Your task to perform on an android device: toggle javascript in the chrome app Image 0: 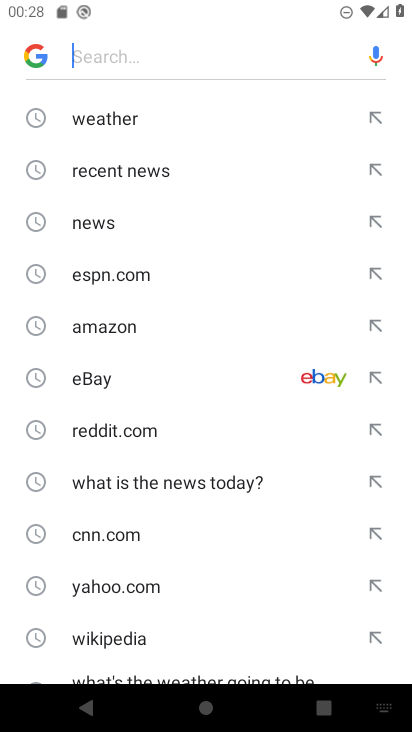
Step 0: press home button
Your task to perform on an android device: toggle javascript in the chrome app Image 1: 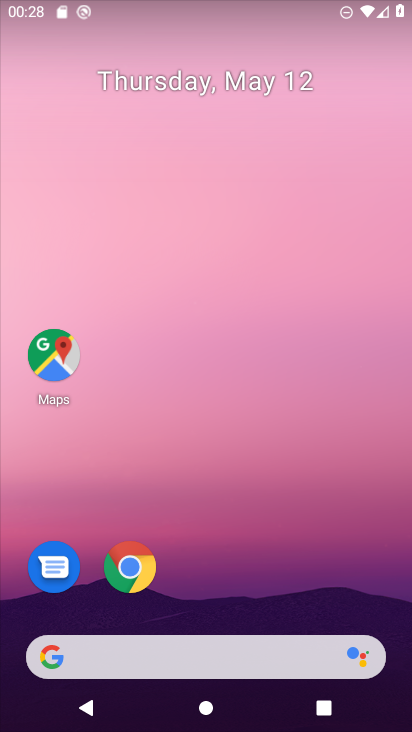
Step 1: click (143, 551)
Your task to perform on an android device: toggle javascript in the chrome app Image 2: 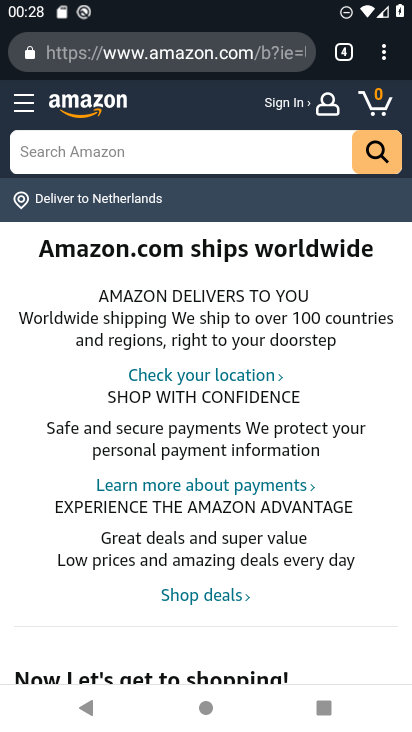
Step 2: click (387, 57)
Your task to perform on an android device: toggle javascript in the chrome app Image 3: 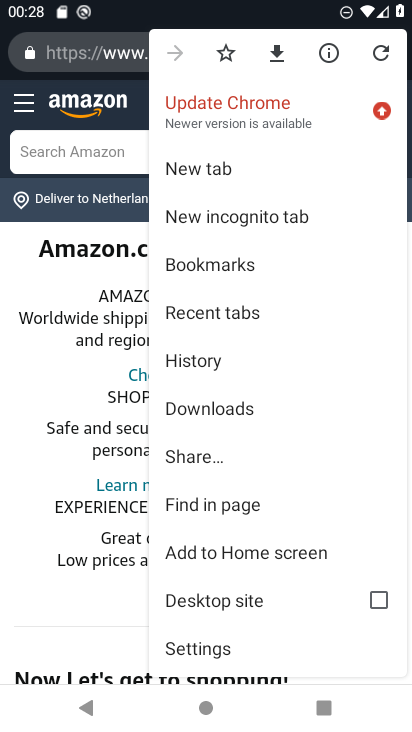
Step 3: click (247, 647)
Your task to perform on an android device: toggle javascript in the chrome app Image 4: 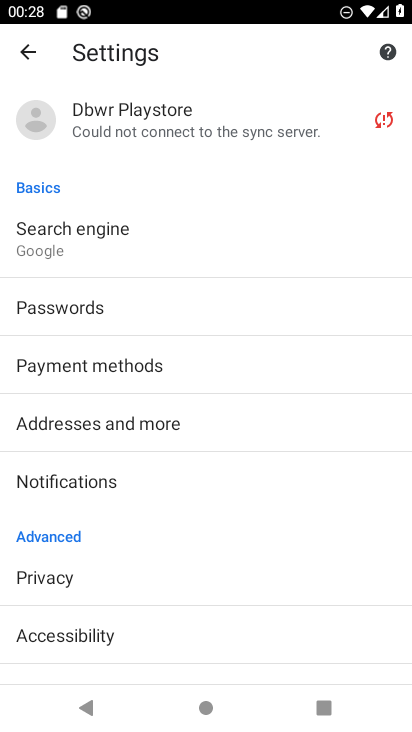
Step 4: drag from (333, 575) to (313, 74)
Your task to perform on an android device: toggle javascript in the chrome app Image 5: 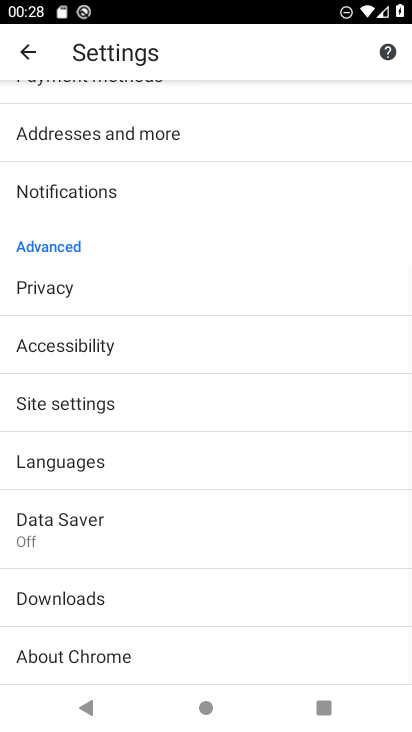
Step 5: click (82, 410)
Your task to perform on an android device: toggle javascript in the chrome app Image 6: 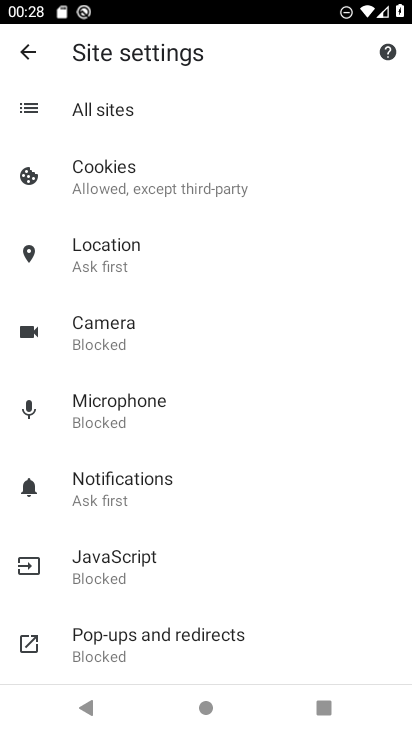
Step 6: click (111, 553)
Your task to perform on an android device: toggle javascript in the chrome app Image 7: 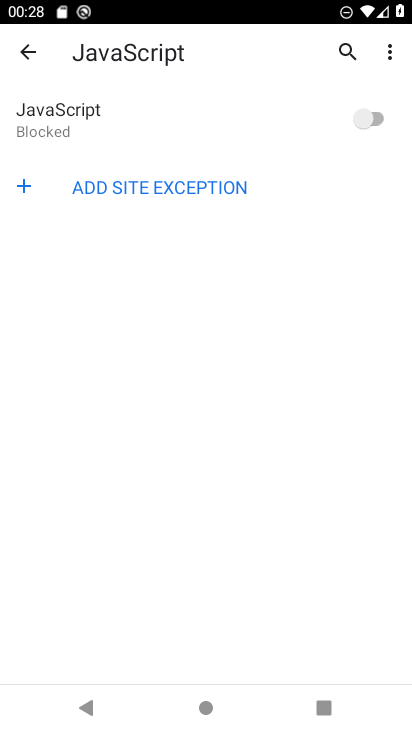
Step 7: click (351, 112)
Your task to perform on an android device: toggle javascript in the chrome app Image 8: 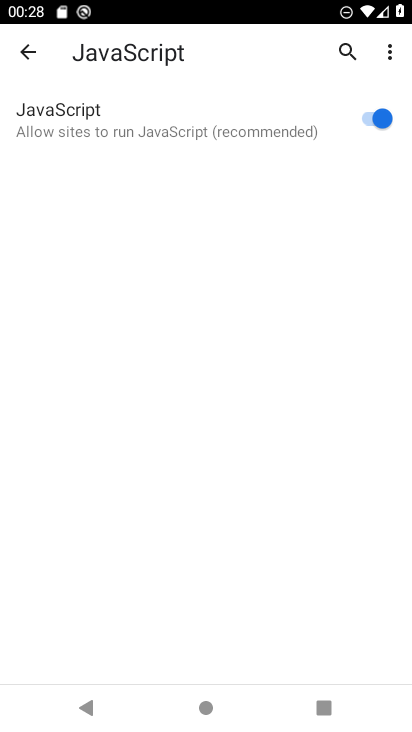
Step 8: task complete